Your task to perform on an android device: turn on the 24-hour format for clock Image 0: 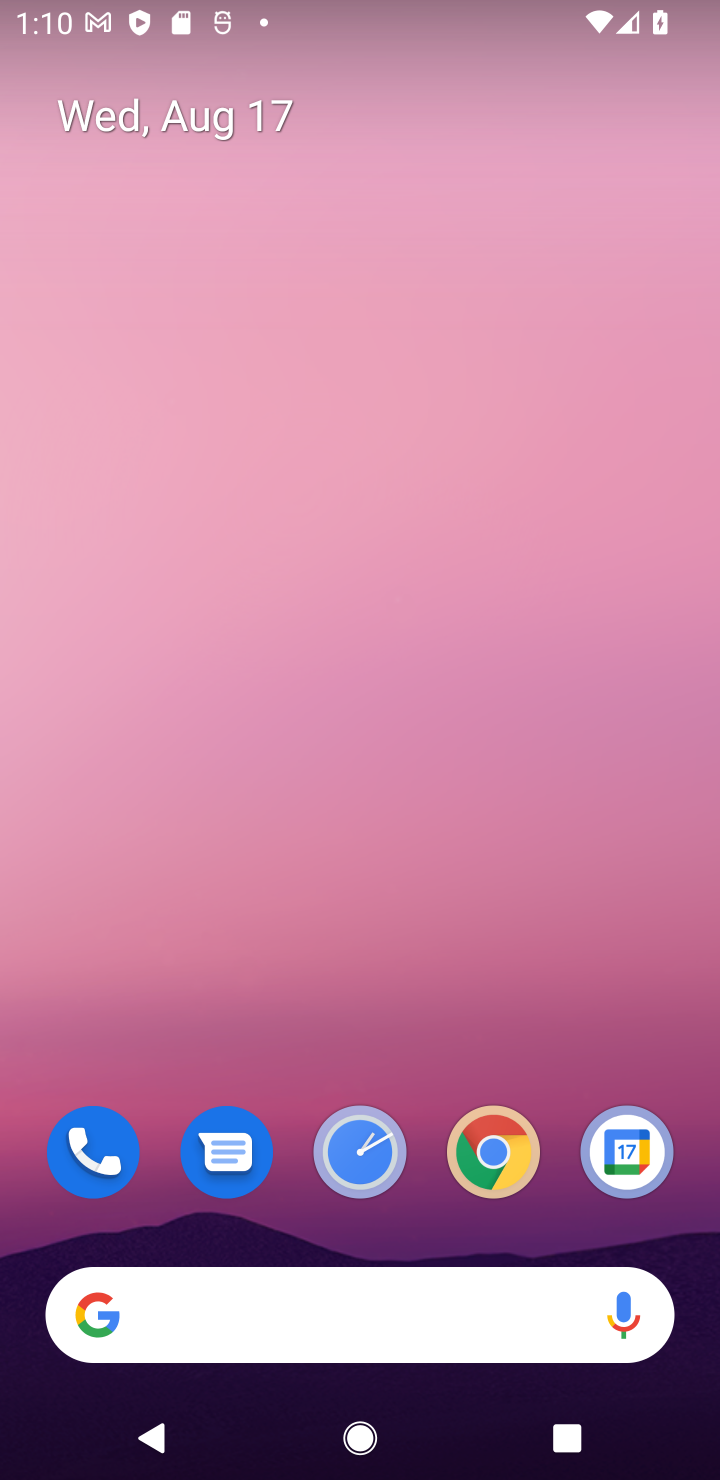
Step 0: drag from (520, 845) to (615, 157)
Your task to perform on an android device: turn on the 24-hour format for clock Image 1: 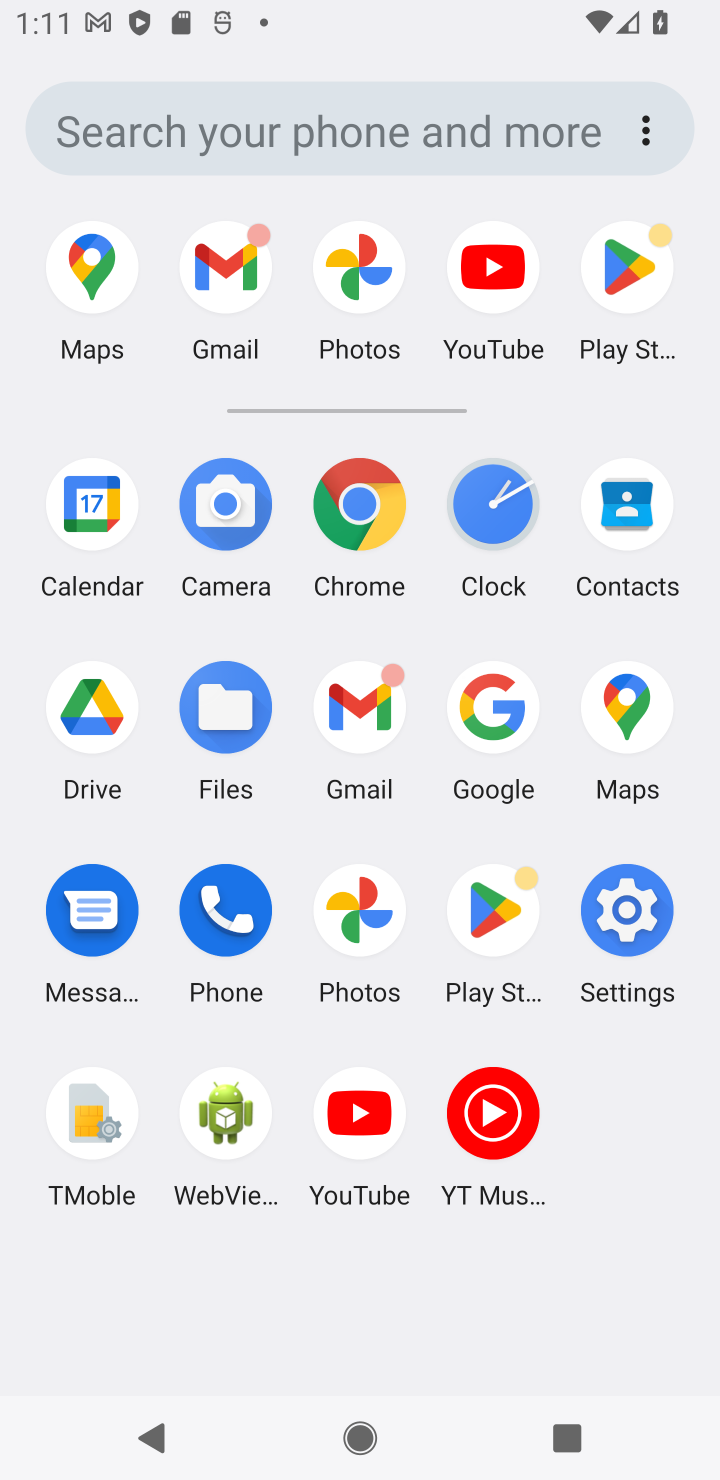
Step 1: click (492, 486)
Your task to perform on an android device: turn on the 24-hour format for clock Image 2: 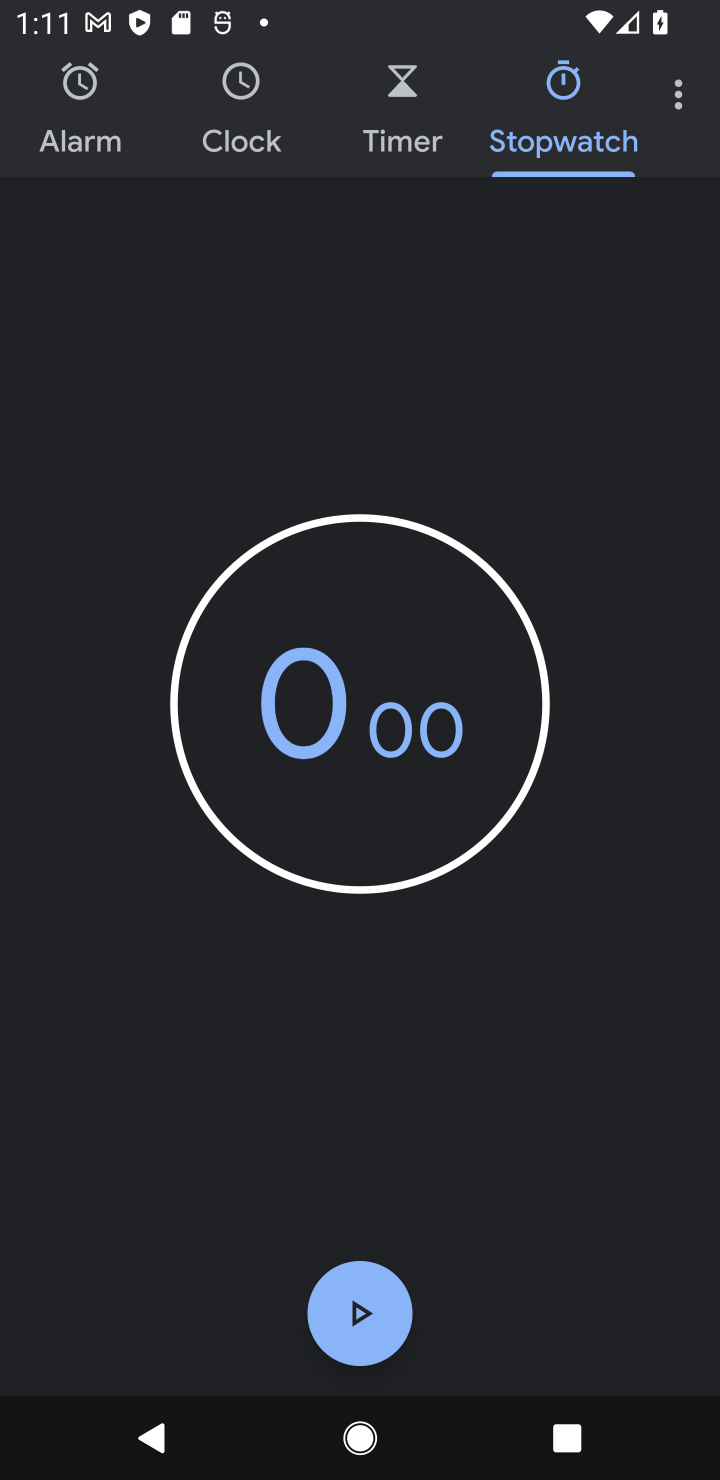
Step 2: click (674, 90)
Your task to perform on an android device: turn on the 24-hour format for clock Image 3: 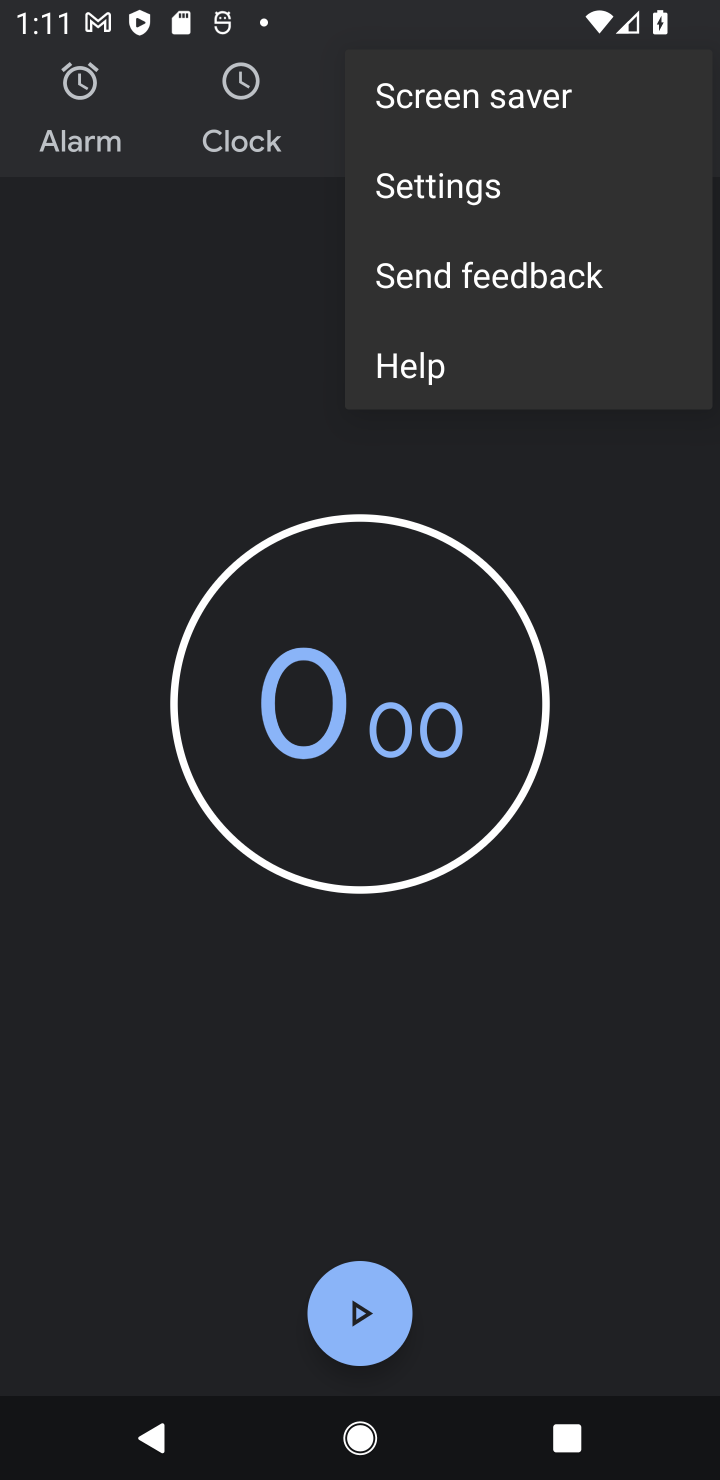
Step 3: click (409, 192)
Your task to perform on an android device: turn on the 24-hour format for clock Image 4: 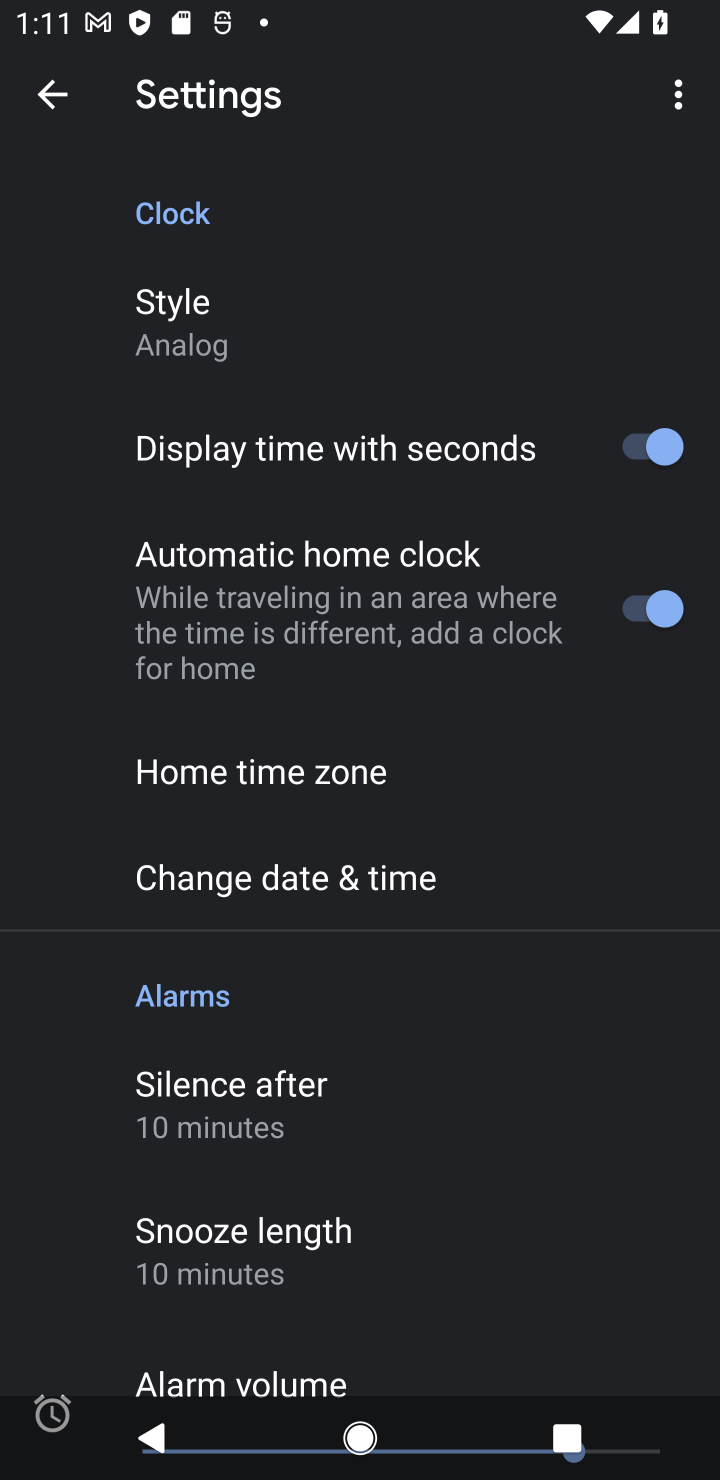
Step 4: click (383, 876)
Your task to perform on an android device: turn on the 24-hour format for clock Image 5: 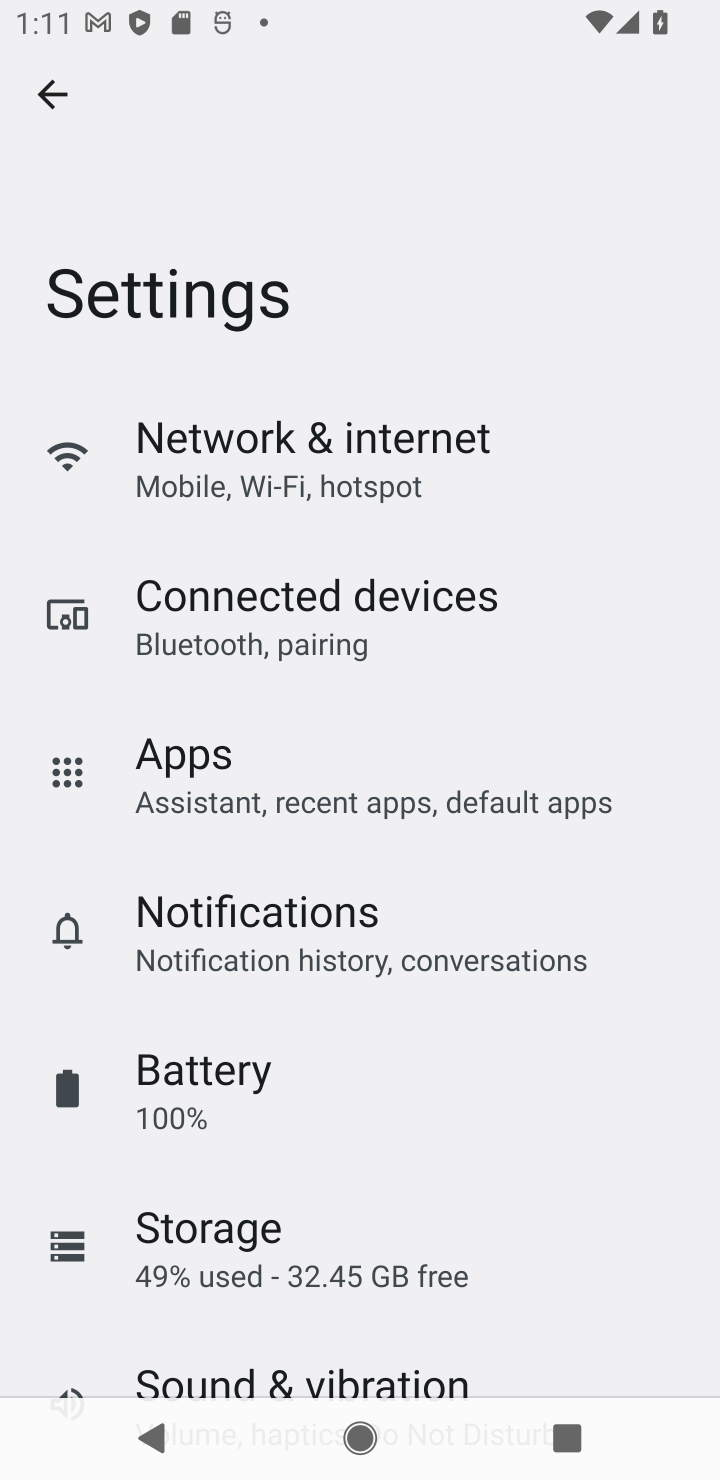
Step 5: task complete